Your task to perform on an android device: turn on sleep mode Image 0: 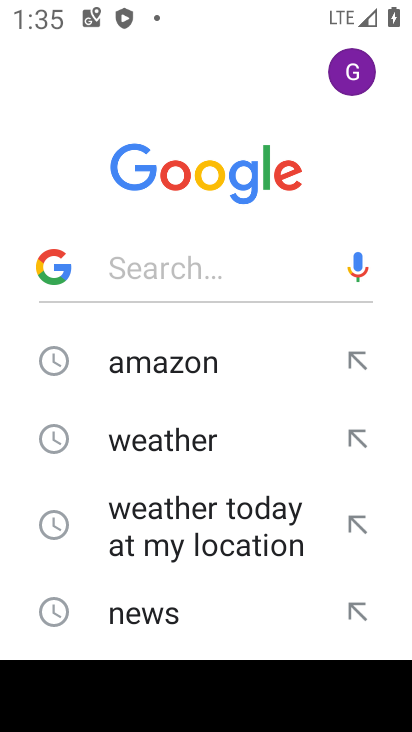
Step 0: press home button
Your task to perform on an android device: turn on sleep mode Image 1: 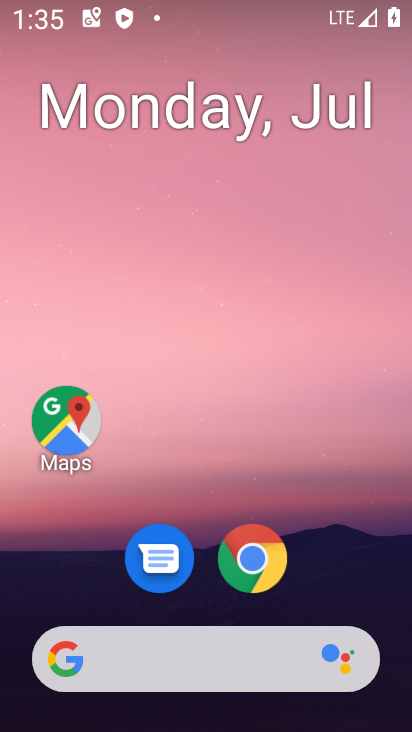
Step 1: drag from (355, 559) to (353, 93)
Your task to perform on an android device: turn on sleep mode Image 2: 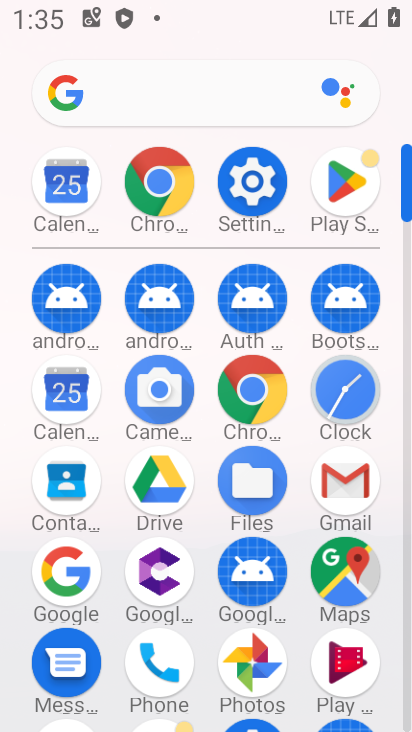
Step 2: click (257, 191)
Your task to perform on an android device: turn on sleep mode Image 3: 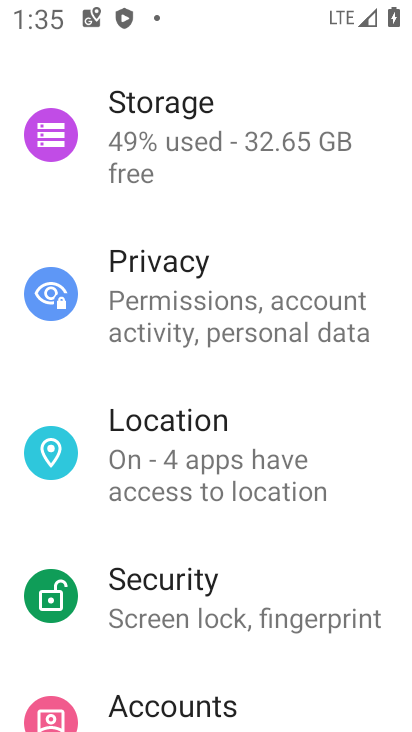
Step 3: drag from (360, 201) to (355, 325)
Your task to perform on an android device: turn on sleep mode Image 4: 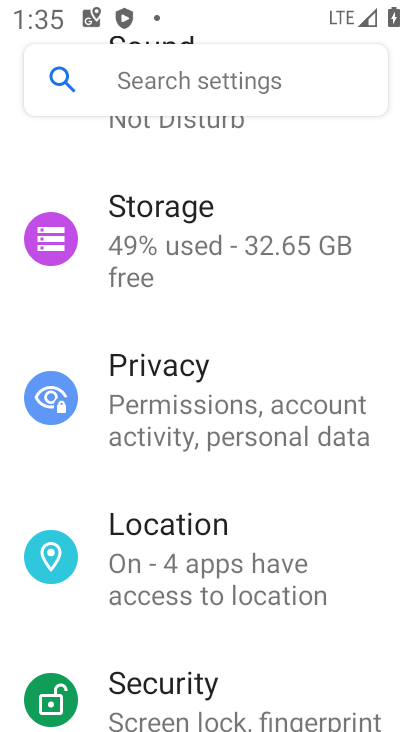
Step 4: drag from (356, 183) to (347, 363)
Your task to perform on an android device: turn on sleep mode Image 5: 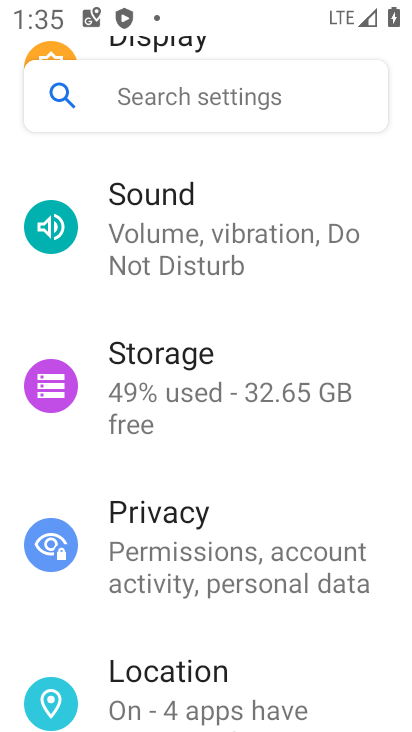
Step 5: drag from (347, 272) to (346, 382)
Your task to perform on an android device: turn on sleep mode Image 6: 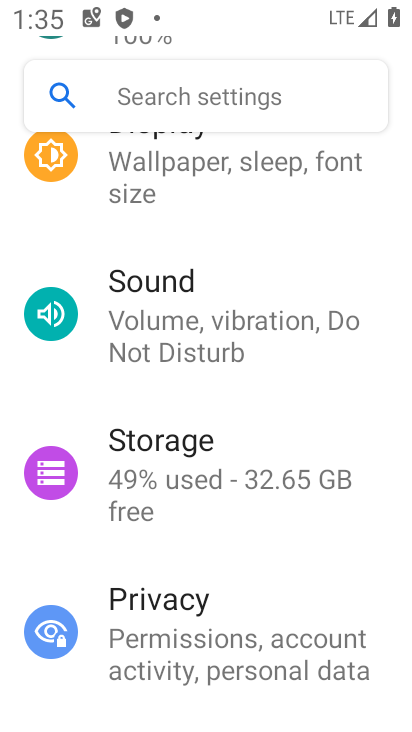
Step 6: drag from (348, 203) to (351, 324)
Your task to perform on an android device: turn on sleep mode Image 7: 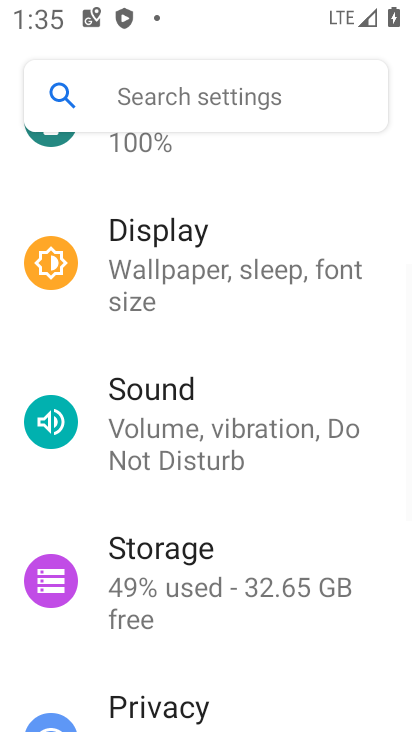
Step 7: drag from (351, 172) to (340, 273)
Your task to perform on an android device: turn on sleep mode Image 8: 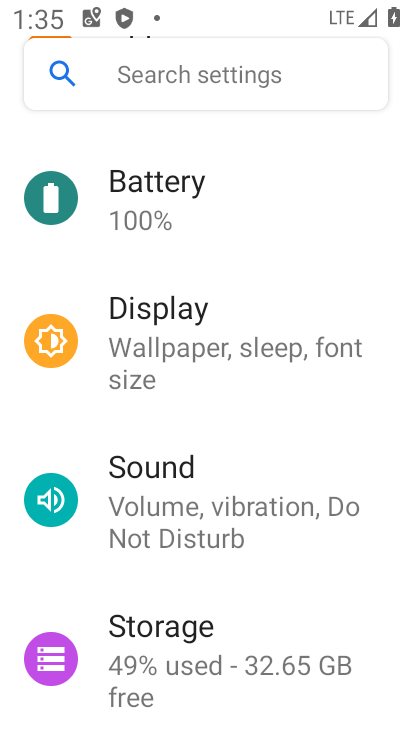
Step 8: drag from (331, 175) to (332, 332)
Your task to perform on an android device: turn on sleep mode Image 9: 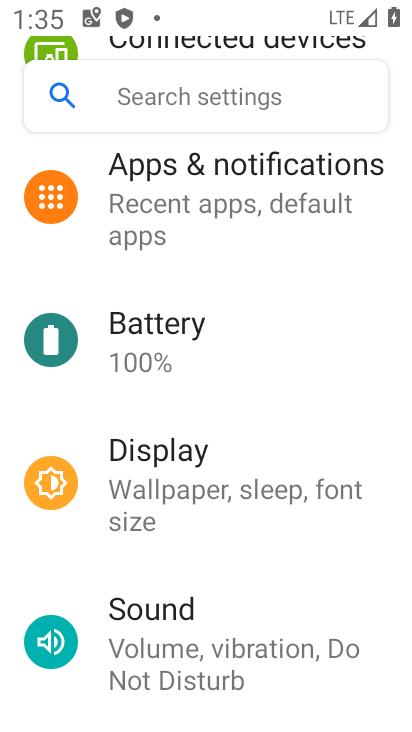
Step 9: click (292, 471)
Your task to perform on an android device: turn on sleep mode Image 10: 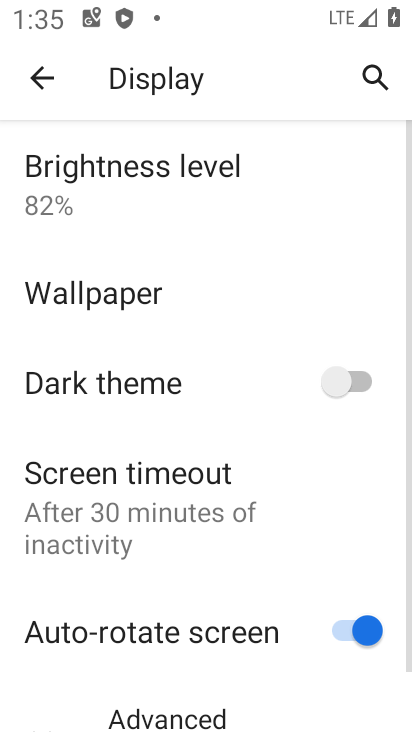
Step 10: drag from (272, 579) to (285, 398)
Your task to perform on an android device: turn on sleep mode Image 11: 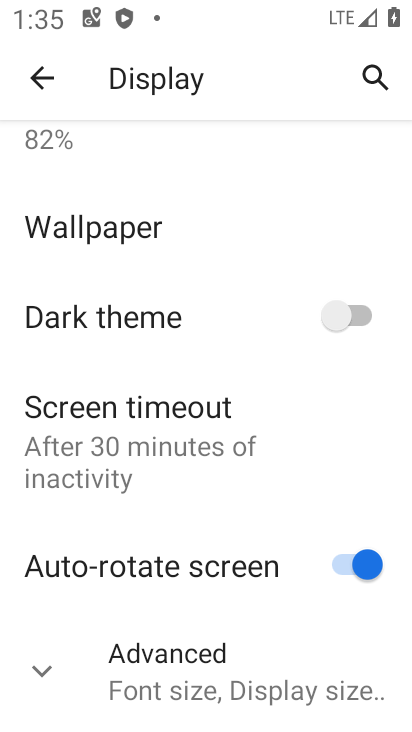
Step 11: click (194, 679)
Your task to perform on an android device: turn on sleep mode Image 12: 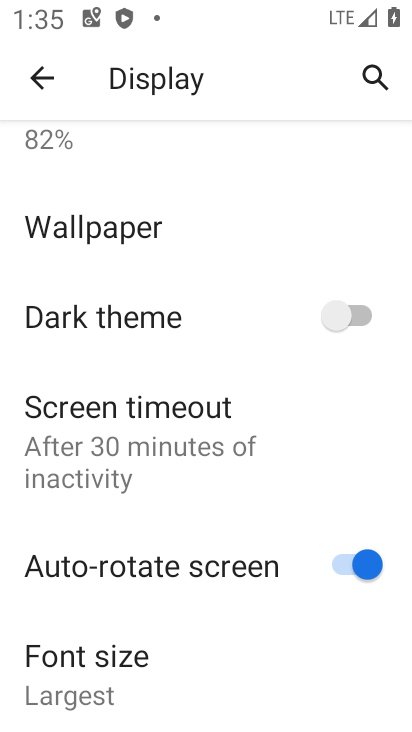
Step 12: task complete